Your task to perform on an android device: What's the weather going to be tomorrow? Image 0: 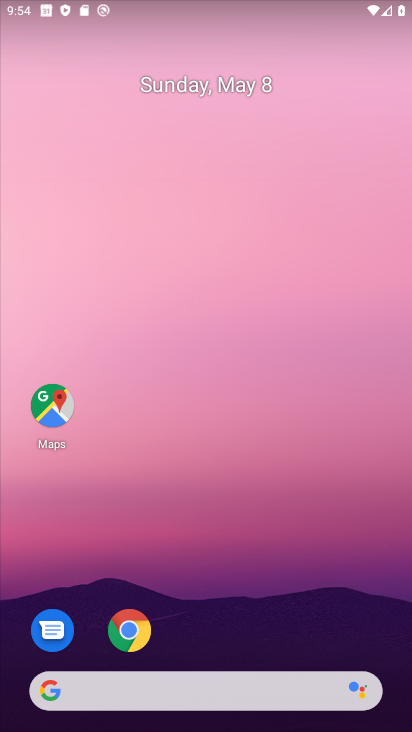
Step 0: drag from (212, 730) to (199, 191)
Your task to perform on an android device: What's the weather going to be tomorrow? Image 1: 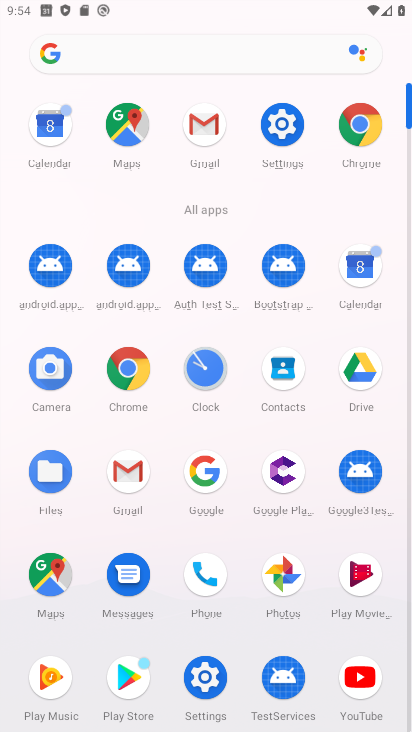
Step 1: click (208, 471)
Your task to perform on an android device: What's the weather going to be tomorrow? Image 2: 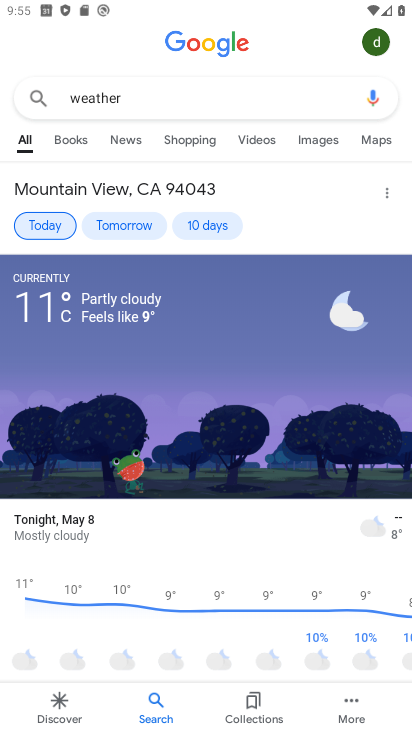
Step 2: click (120, 228)
Your task to perform on an android device: What's the weather going to be tomorrow? Image 3: 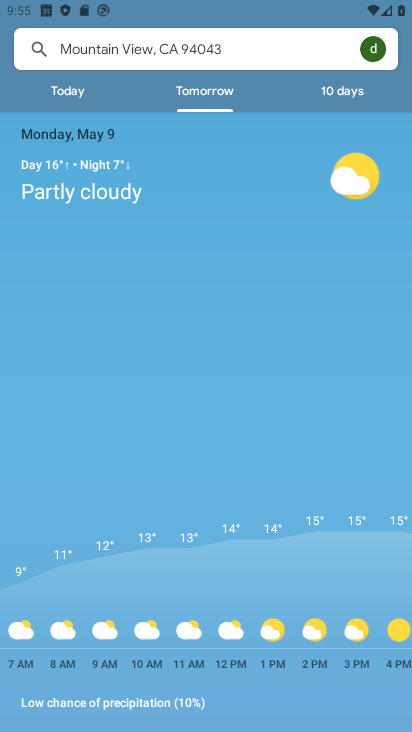
Step 3: task complete